Your task to perform on an android device: empty trash in google photos Image 0: 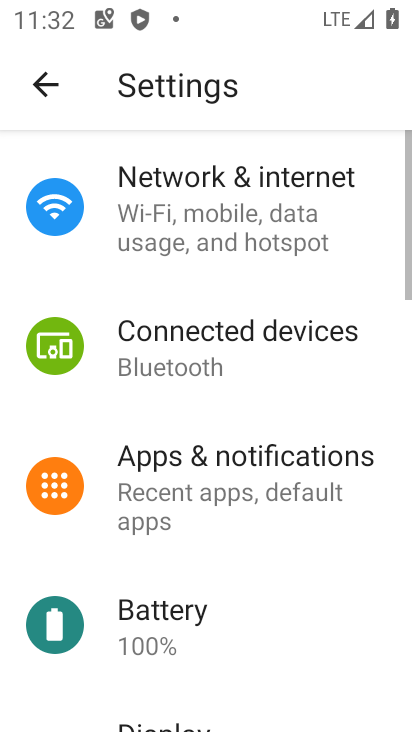
Step 0: press home button
Your task to perform on an android device: empty trash in google photos Image 1: 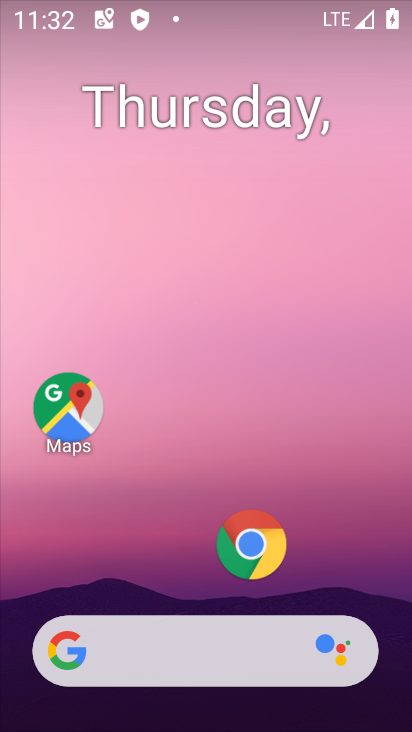
Step 1: drag from (222, 615) to (178, 4)
Your task to perform on an android device: empty trash in google photos Image 2: 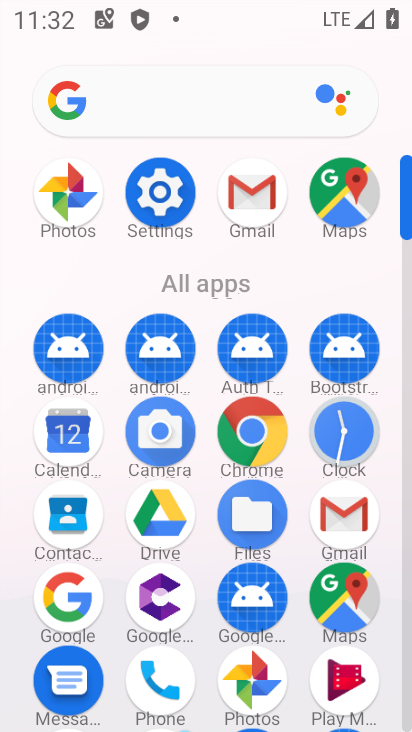
Step 2: click (63, 216)
Your task to perform on an android device: empty trash in google photos Image 3: 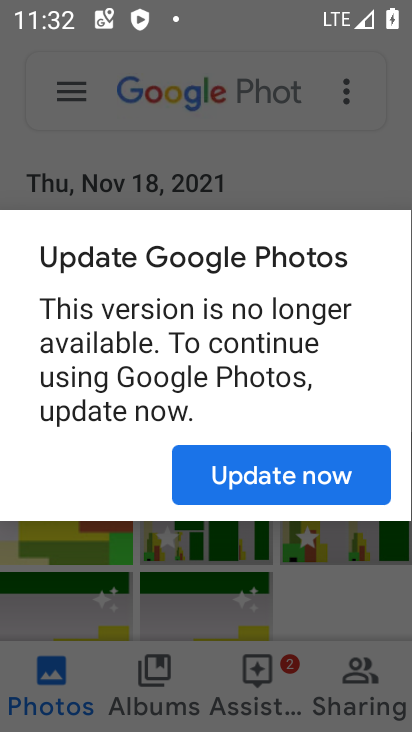
Step 3: click (227, 472)
Your task to perform on an android device: empty trash in google photos Image 4: 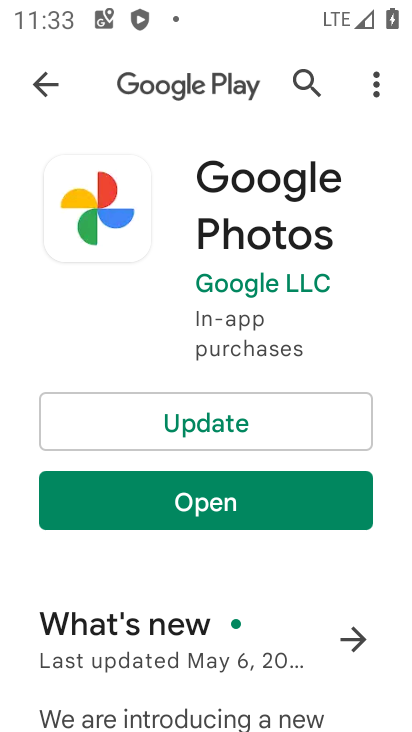
Step 4: click (209, 435)
Your task to perform on an android device: empty trash in google photos Image 5: 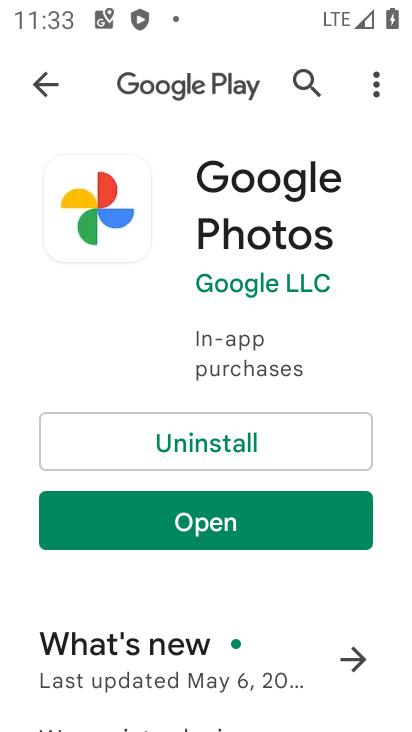
Step 5: click (206, 528)
Your task to perform on an android device: empty trash in google photos Image 6: 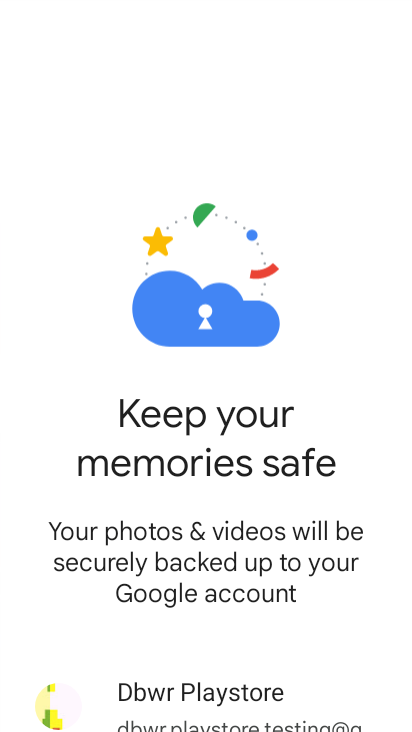
Step 6: drag from (225, 661) to (225, 12)
Your task to perform on an android device: empty trash in google photos Image 7: 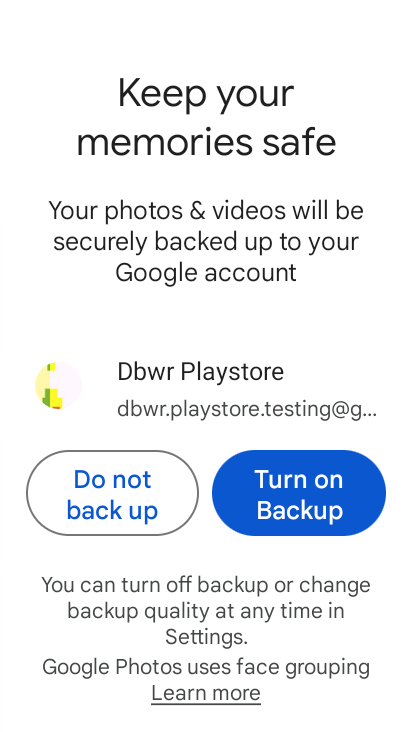
Step 7: click (127, 500)
Your task to perform on an android device: empty trash in google photos Image 8: 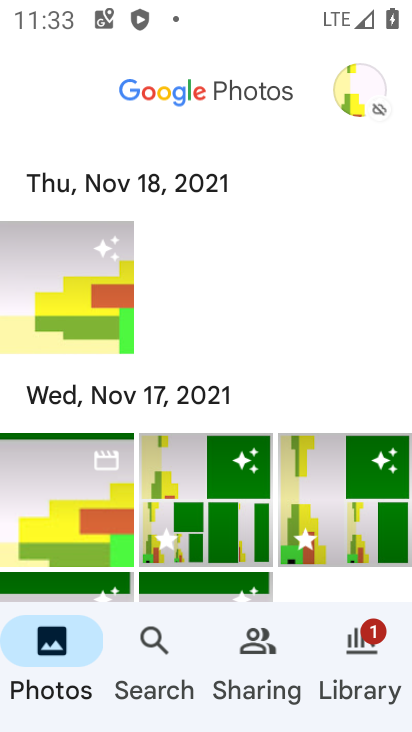
Step 8: click (338, 667)
Your task to perform on an android device: empty trash in google photos Image 9: 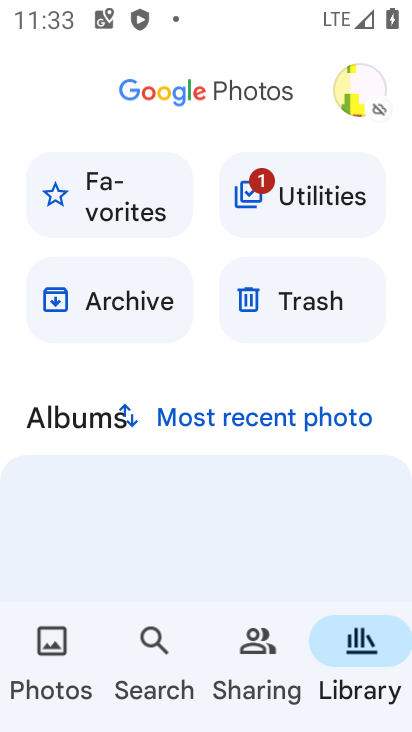
Step 9: click (340, 306)
Your task to perform on an android device: empty trash in google photos Image 10: 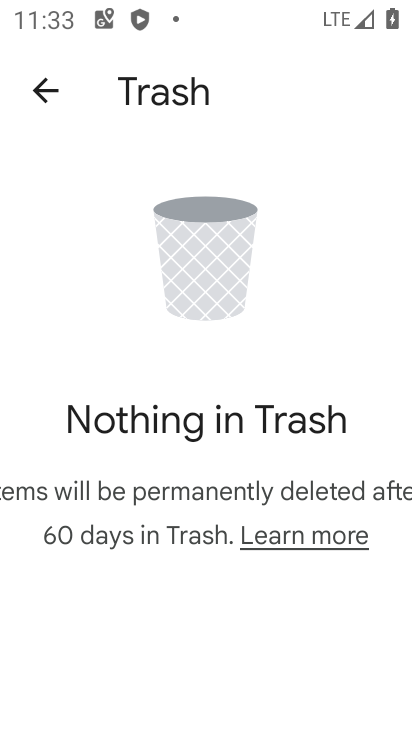
Step 10: task complete